Your task to perform on an android device: turn off smart reply in the gmail app Image 0: 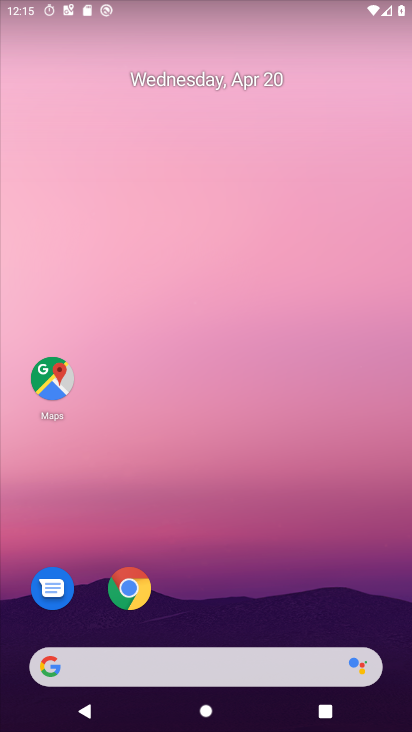
Step 0: drag from (196, 639) to (319, 14)
Your task to perform on an android device: turn off smart reply in the gmail app Image 1: 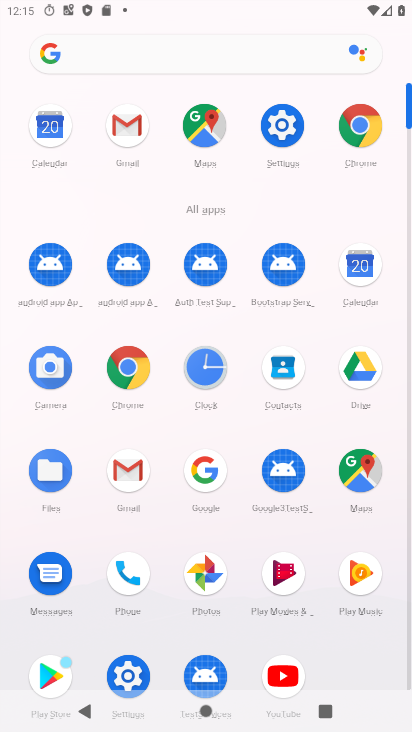
Step 1: click (125, 476)
Your task to perform on an android device: turn off smart reply in the gmail app Image 2: 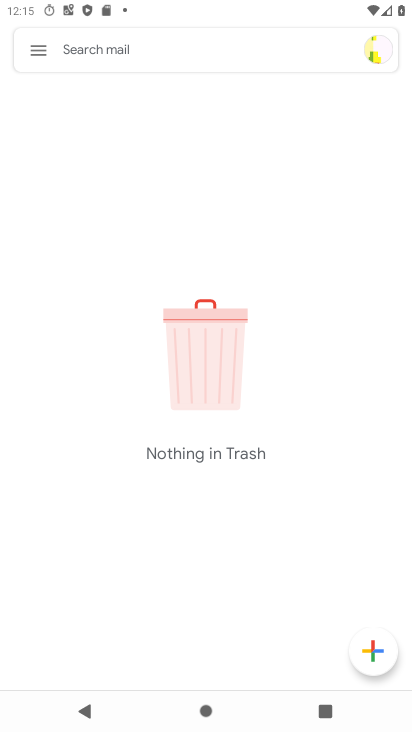
Step 2: click (36, 43)
Your task to perform on an android device: turn off smart reply in the gmail app Image 3: 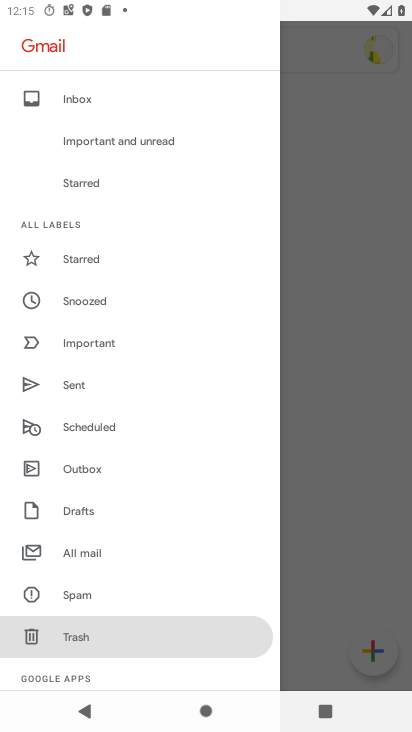
Step 3: drag from (107, 548) to (88, 118)
Your task to perform on an android device: turn off smart reply in the gmail app Image 4: 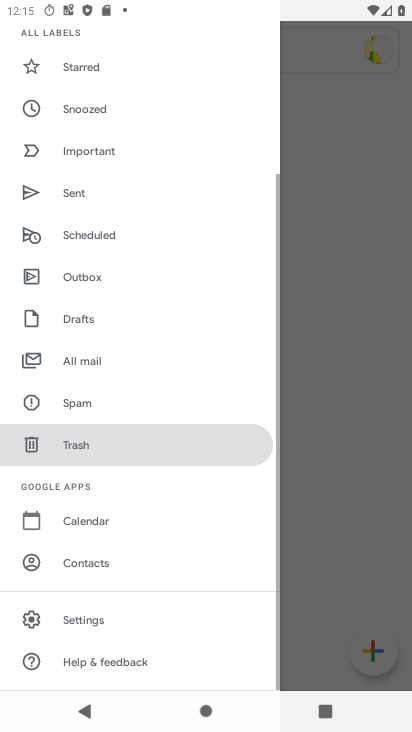
Step 4: click (49, 626)
Your task to perform on an android device: turn off smart reply in the gmail app Image 5: 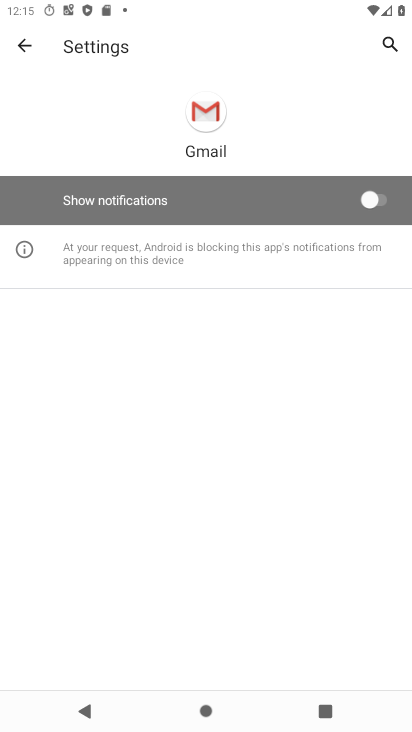
Step 5: click (28, 61)
Your task to perform on an android device: turn off smart reply in the gmail app Image 6: 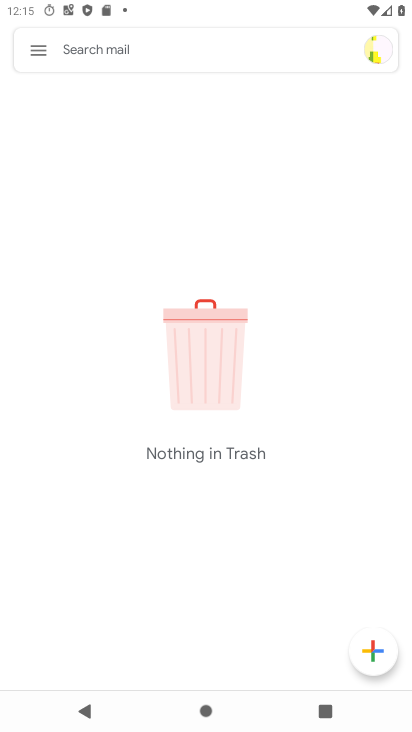
Step 6: click (27, 47)
Your task to perform on an android device: turn off smart reply in the gmail app Image 7: 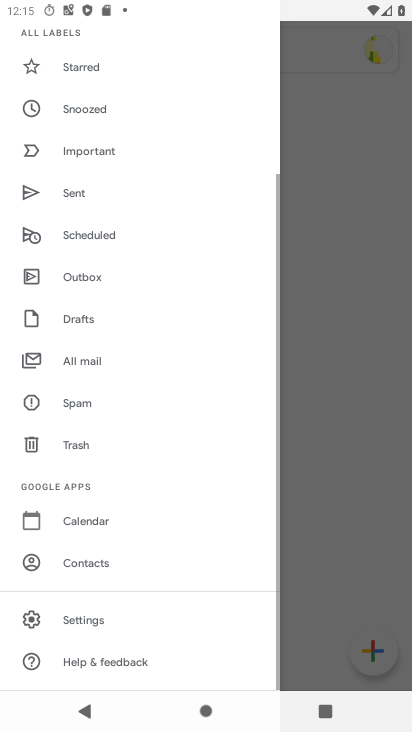
Step 7: click (110, 623)
Your task to perform on an android device: turn off smart reply in the gmail app Image 8: 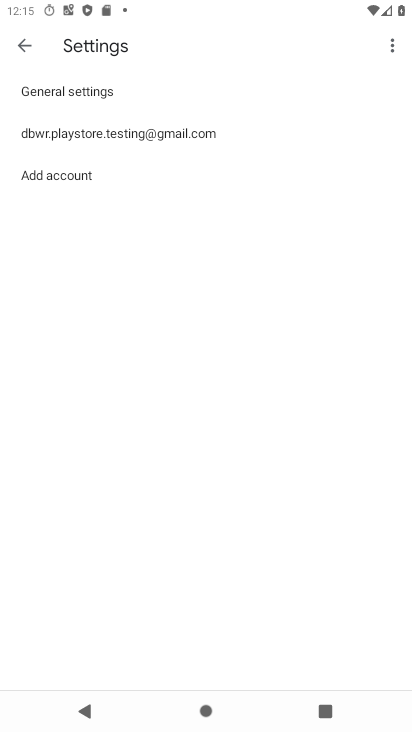
Step 8: click (99, 120)
Your task to perform on an android device: turn off smart reply in the gmail app Image 9: 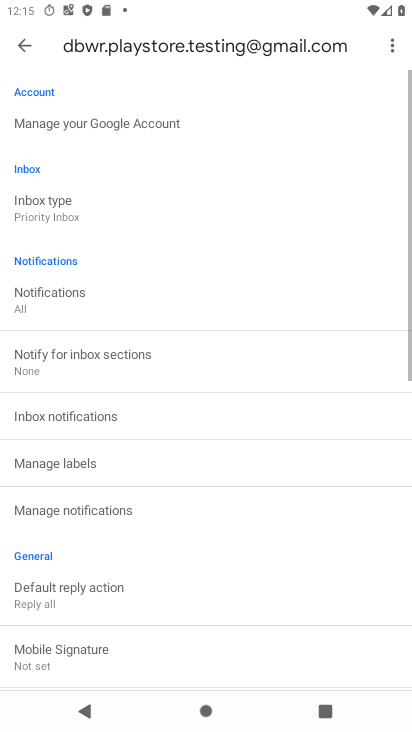
Step 9: drag from (247, 586) to (238, 152)
Your task to perform on an android device: turn off smart reply in the gmail app Image 10: 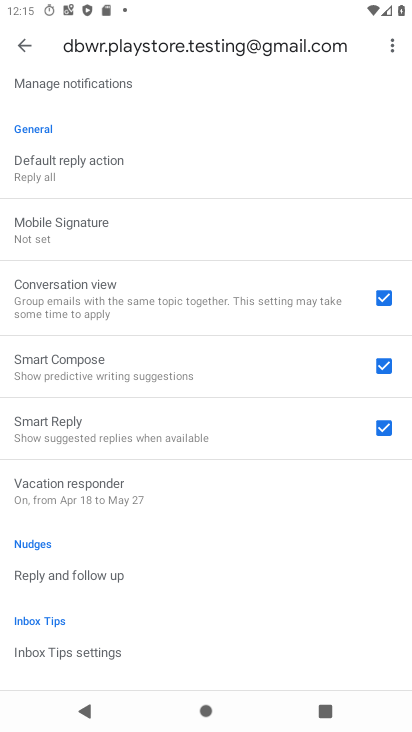
Step 10: click (377, 429)
Your task to perform on an android device: turn off smart reply in the gmail app Image 11: 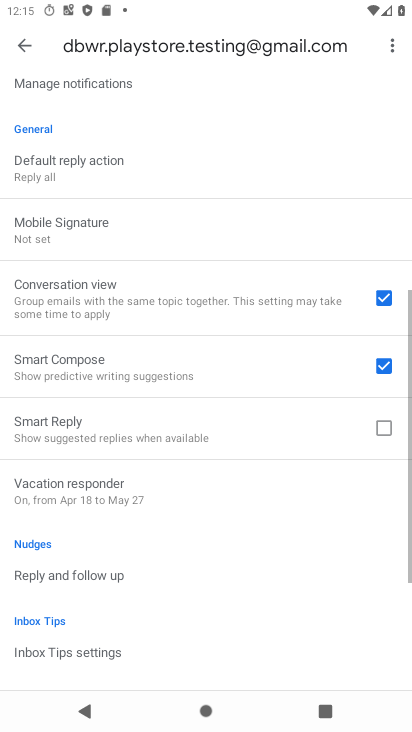
Step 11: task complete